Your task to perform on an android device: toggle pop-ups in chrome Image 0: 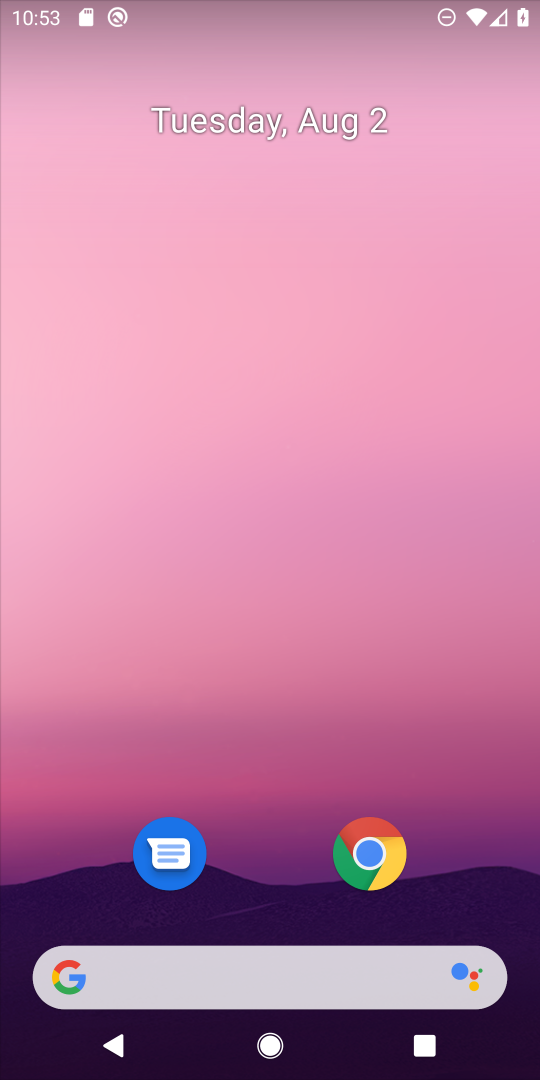
Step 0: click (367, 853)
Your task to perform on an android device: toggle pop-ups in chrome Image 1: 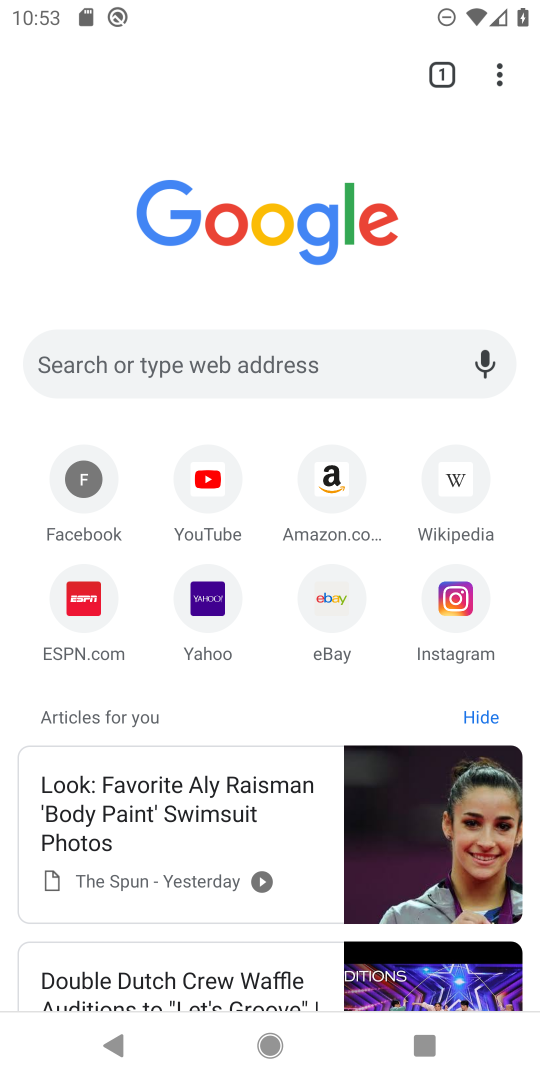
Step 1: click (507, 80)
Your task to perform on an android device: toggle pop-ups in chrome Image 2: 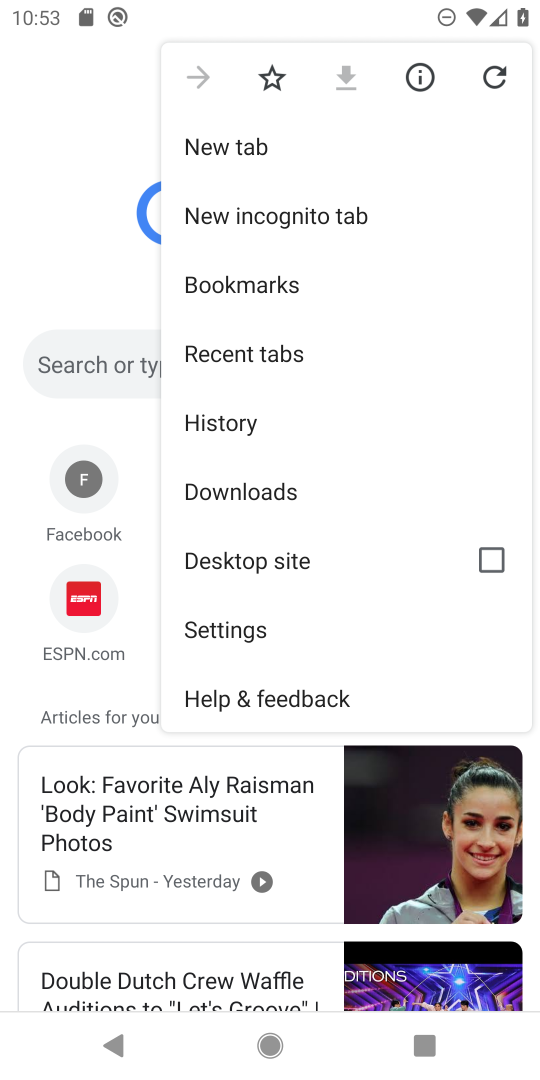
Step 2: click (247, 621)
Your task to perform on an android device: toggle pop-ups in chrome Image 3: 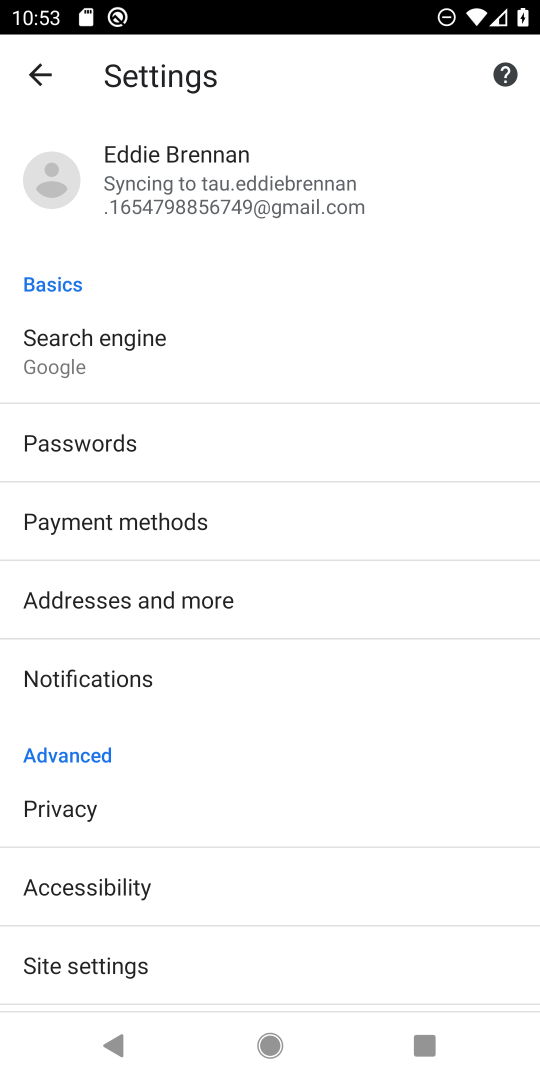
Step 3: drag from (178, 756) to (151, 553)
Your task to perform on an android device: toggle pop-ups in chrome Image 4: 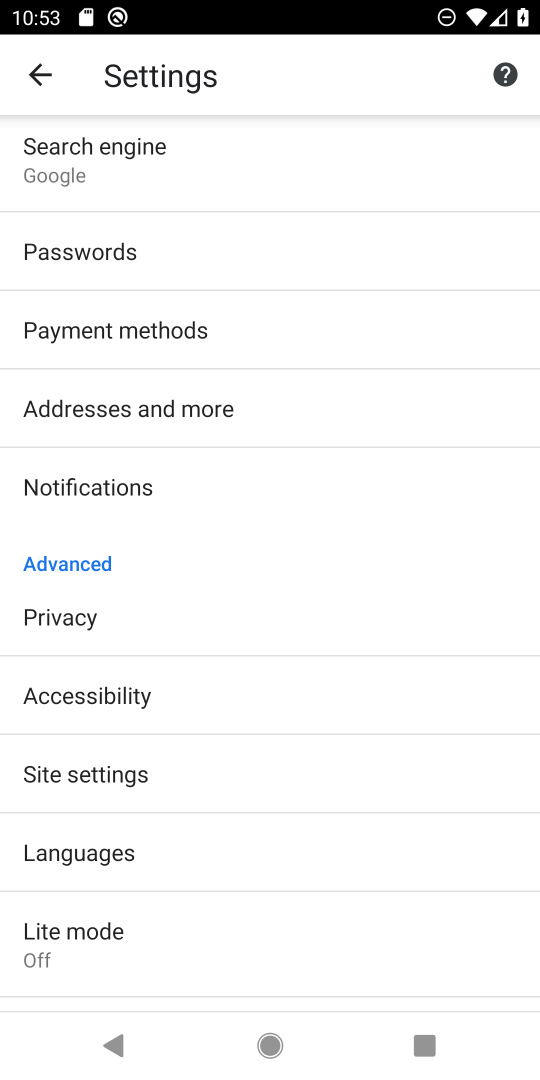
Step 4: click (186, 771)
Your task to perform on an android device: toggle pop-ups in chrome Image 5: 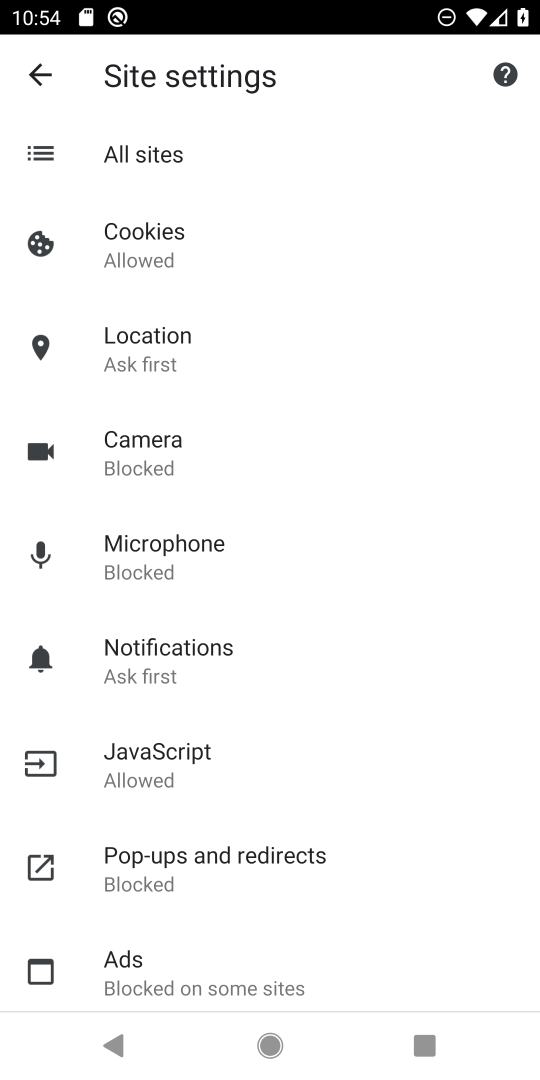
Step 5: click (215, 860)
Your task to perform on an android device: toggle pop-ups in chrome Image 6: 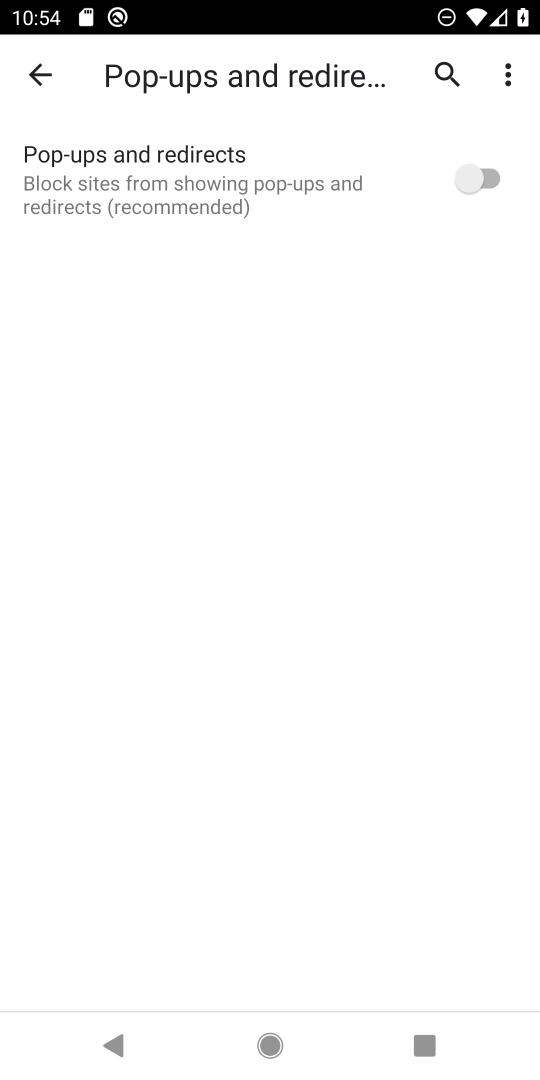
Step 6: click (470, 182)
Your task to perform on an android device: toggle pop-ups in chrome Image 7: 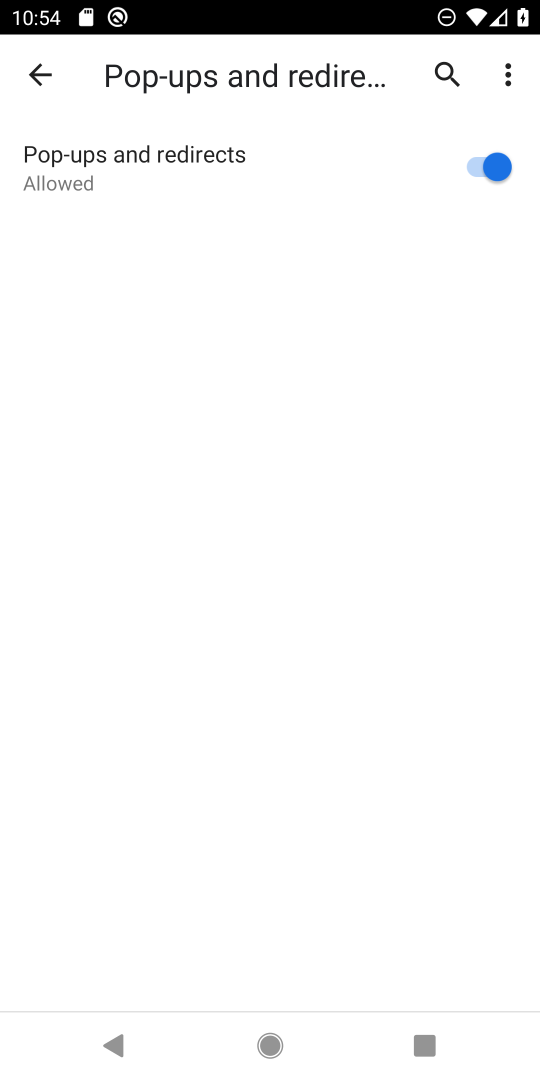
Step 7: task complete